Your task to perform on an android device: Go to Yahoo.com Image 0: 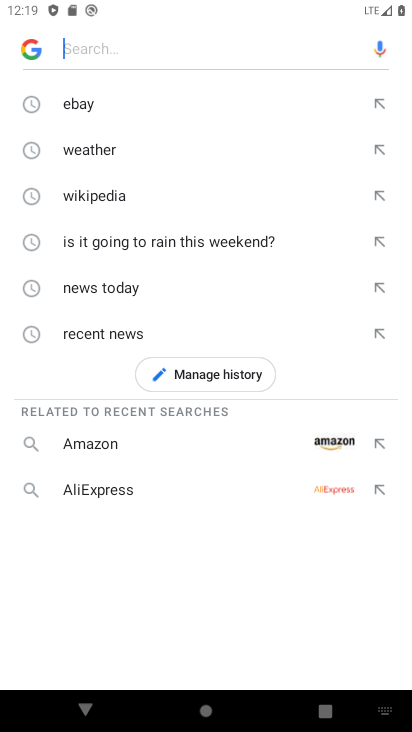
Step 0: press home button
Your task to perform on an android device: Go to Yahoo.com Image 1: 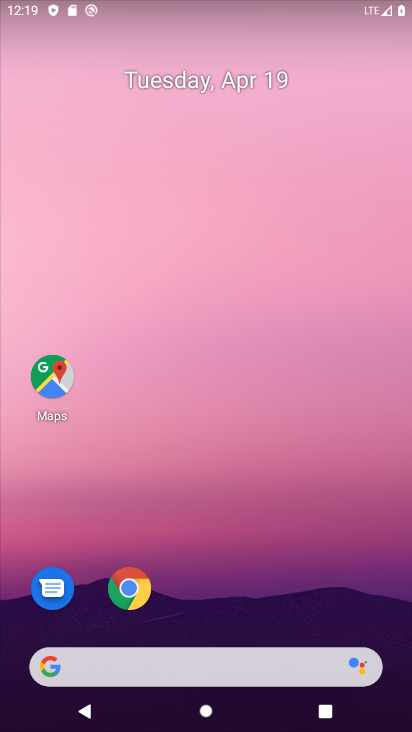
Step 1: drag from (359, 581) to (370, 43)
Your task to perform on an android device: Go to Yahoo.com Image 2: 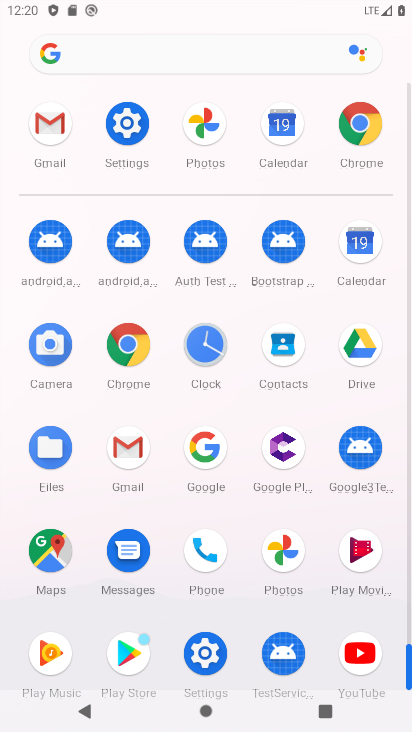
Step 2: click (362, 131)
Your task to perform on an android device: Go to Yahoo.com Image 3: 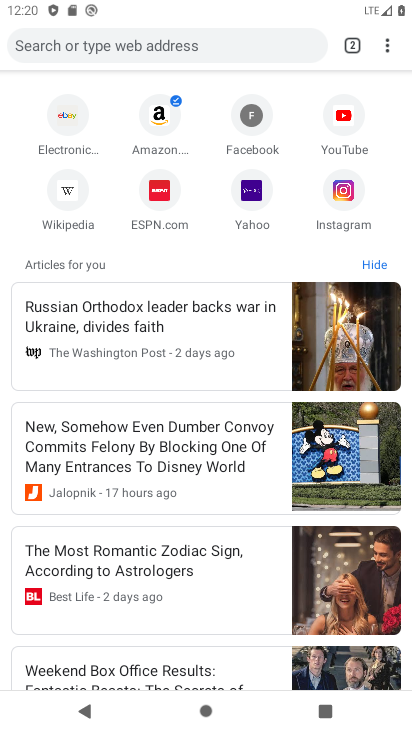
Step 3: click (248, 188)
Your task to perform on an android device: Go to Yahoo.com Image 4: 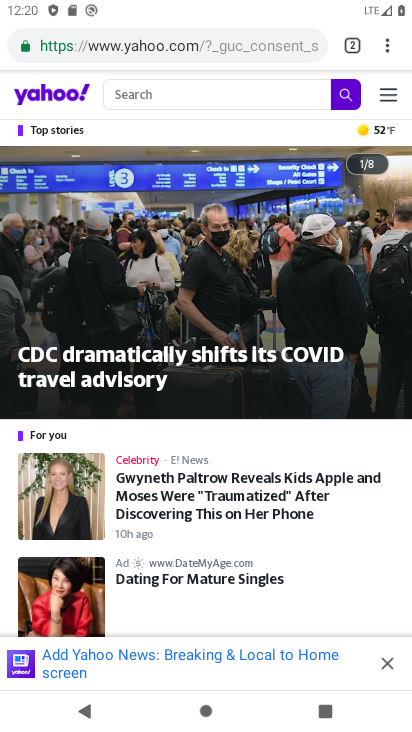
Step 4: task complete